Your task to perform on an android device: Search for vegetarian restaurants on Maps Image 0: 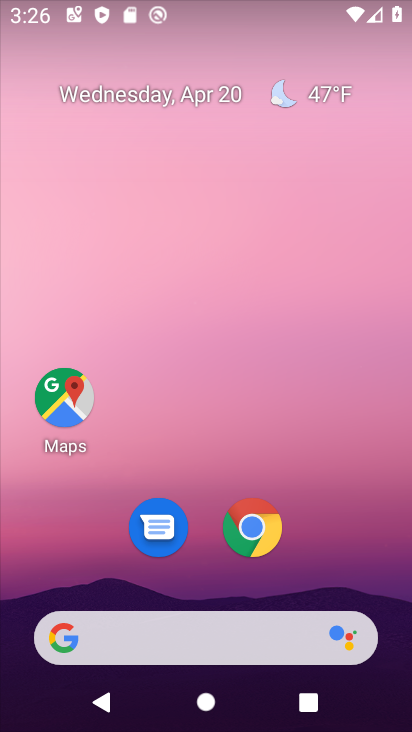
Step 0: click (70, 400)
Your task to perform on an android device: Search for vegetarian restaurants on Maps Image 1: 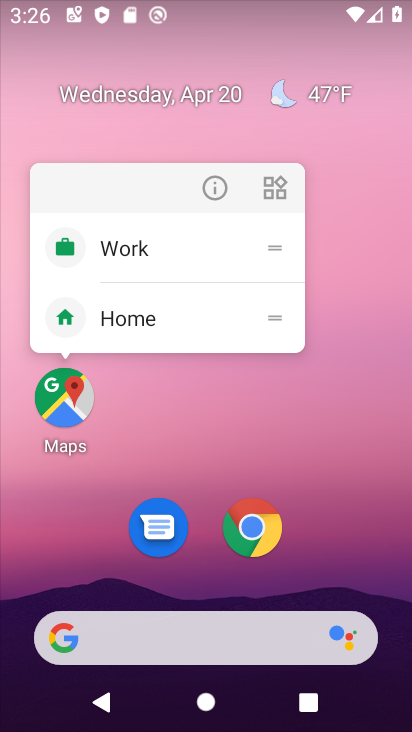
Step 1: click (68, 407)
Your task to perform on an android device: Search for vegetarian restaurants on Maps Image 2: 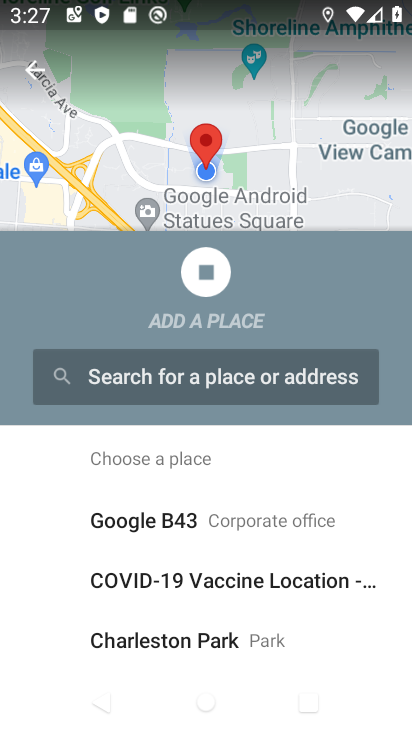
Step 2: press back button
Your task to perform on an android device: Search for vegetarian restaurants on Maps Image 3: 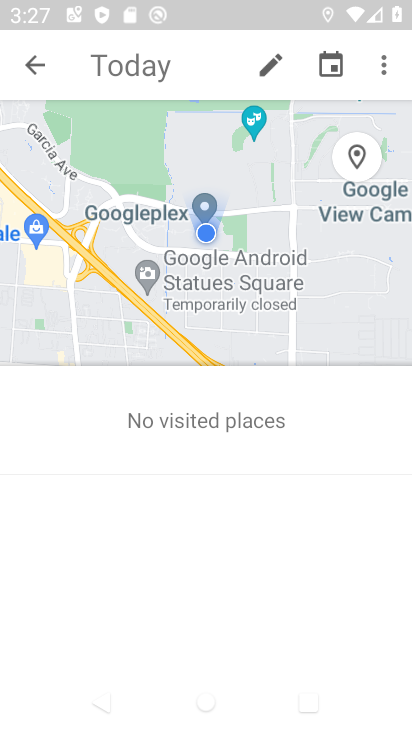
Step 3: press back button
Your task to perform on an android device: Search for vegetarian restaurants on Maps Image 4: 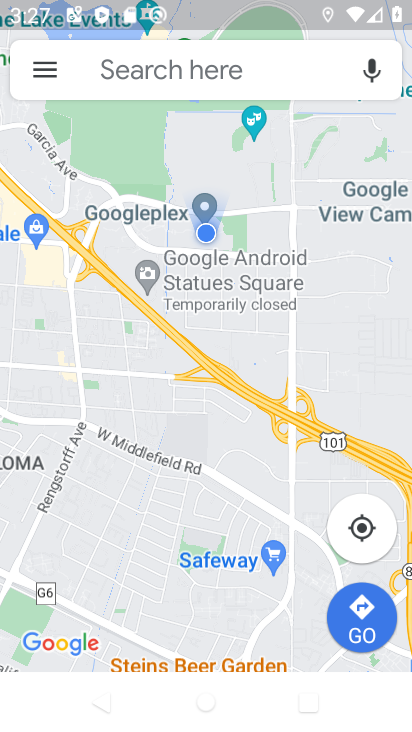
Step 4: click (172, 71)
Your task to perform on an android device: Search for vegetarian restaurants on Maps Image 5: 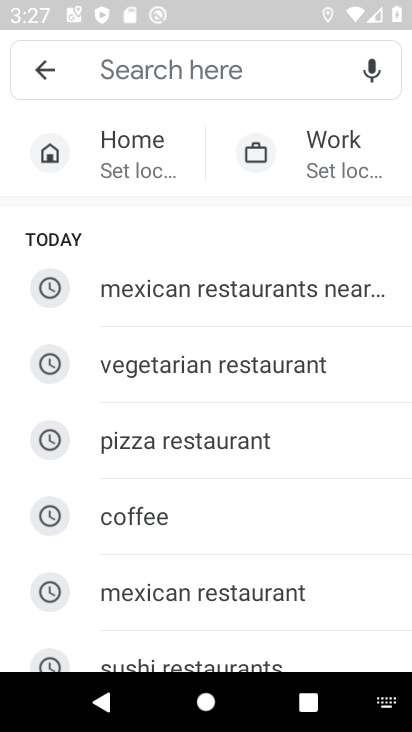
Step 5: click (248, 362)
Your task to perform on an android device: Search for vegetarian restaurants on Maps Image 6: 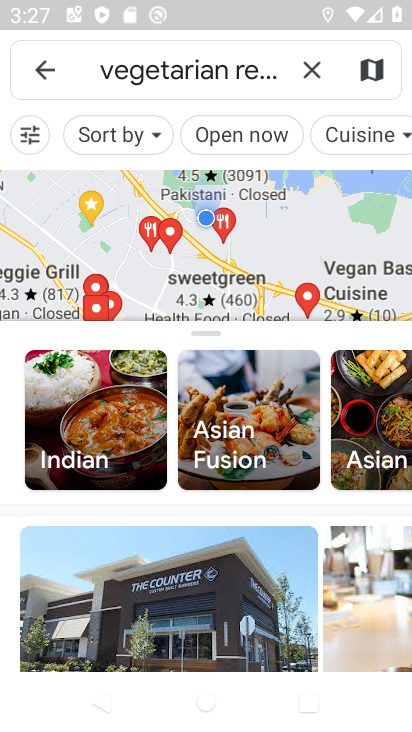
Step 6: task complete